Your task to perform on an android device: install app "Fetch Rewards" Image 0: 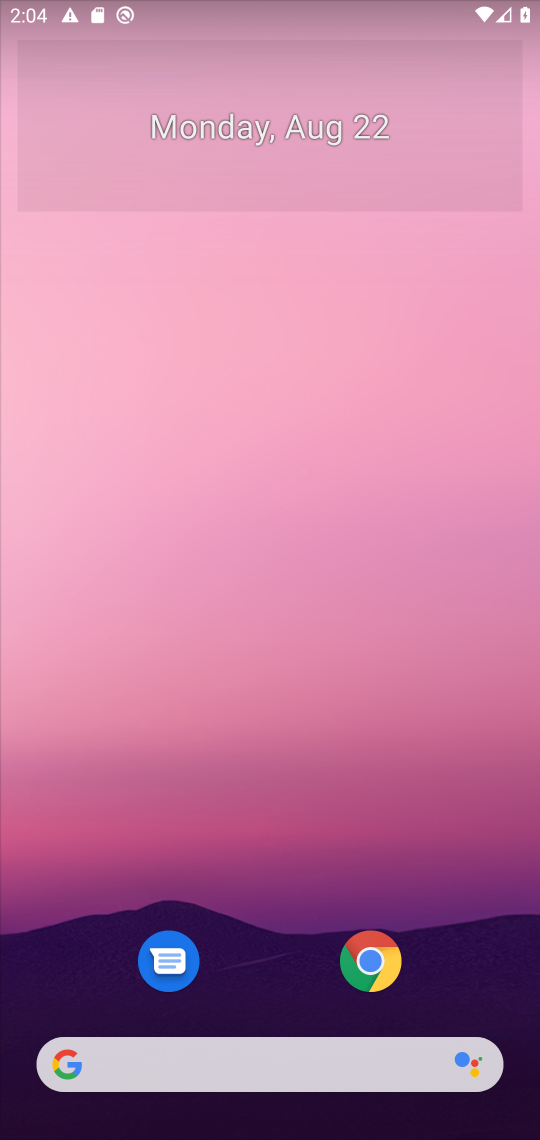
Step 0: press home button
Your task to perform on an android device: install app "Fetch Rewards" Image 1: 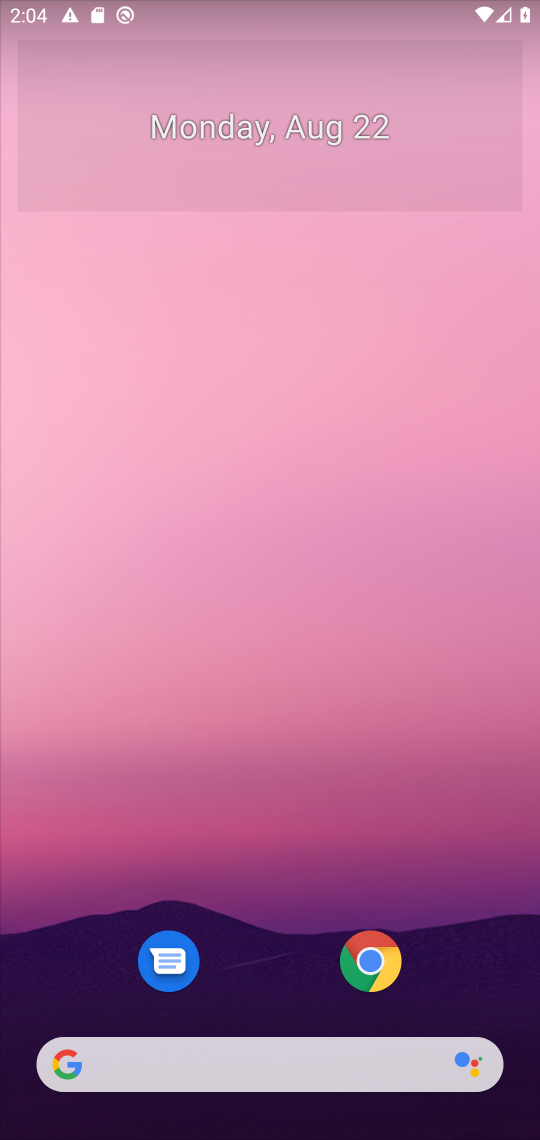
Step 1: drag from (465, 982) to (481, 178)
Your task to perform on an android device: install app "Fetch Rewards" Image 2: 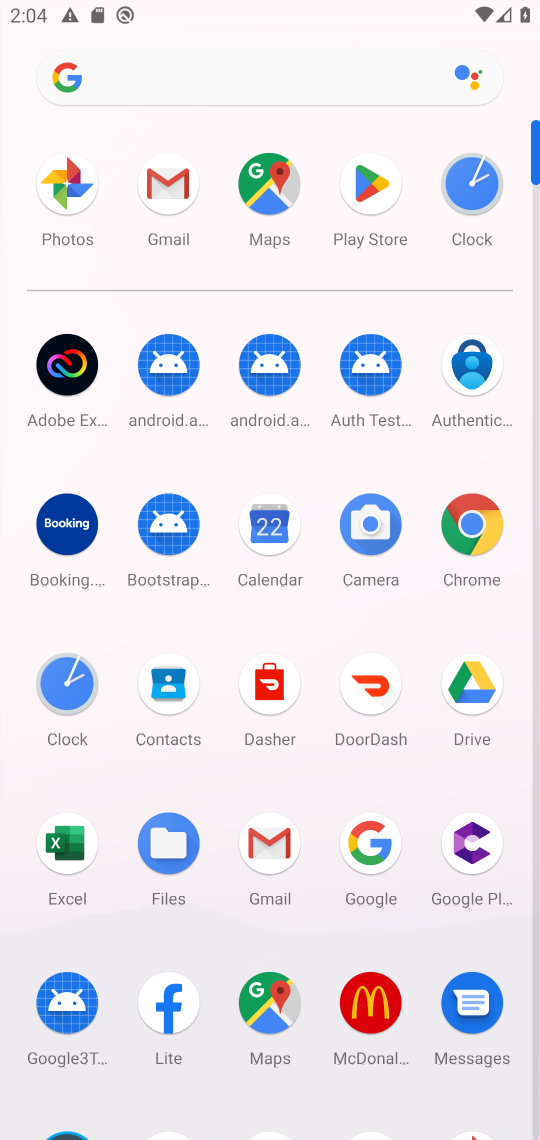
Step 2: click (375, 197)
Your task to perform on an android device: install app "Fetch Rewards" Image 3: 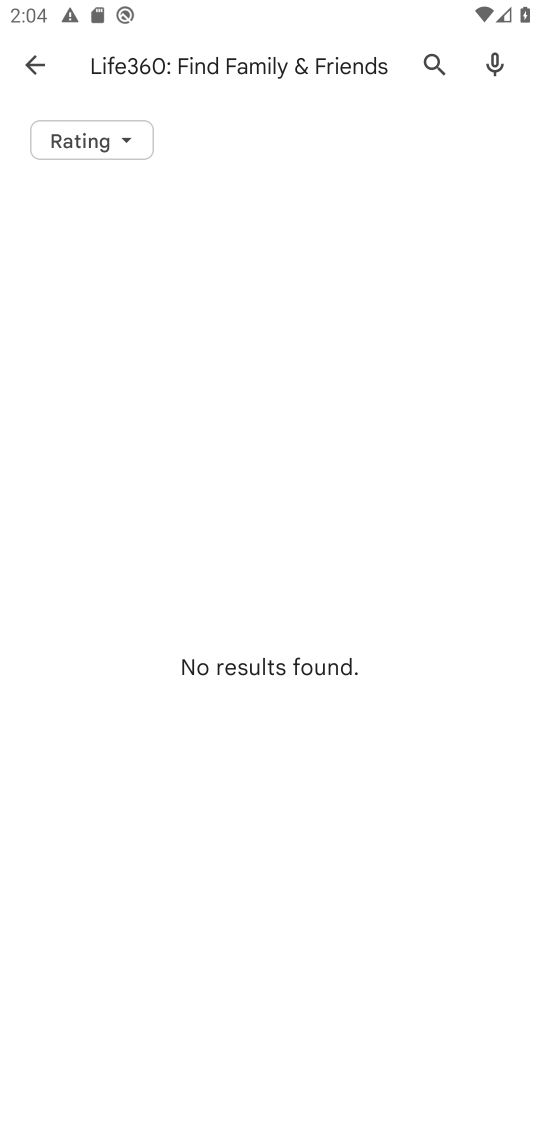
Step 3: press back button
Your task to perform on an android device: install app "Fetch Rewards" Image 4: 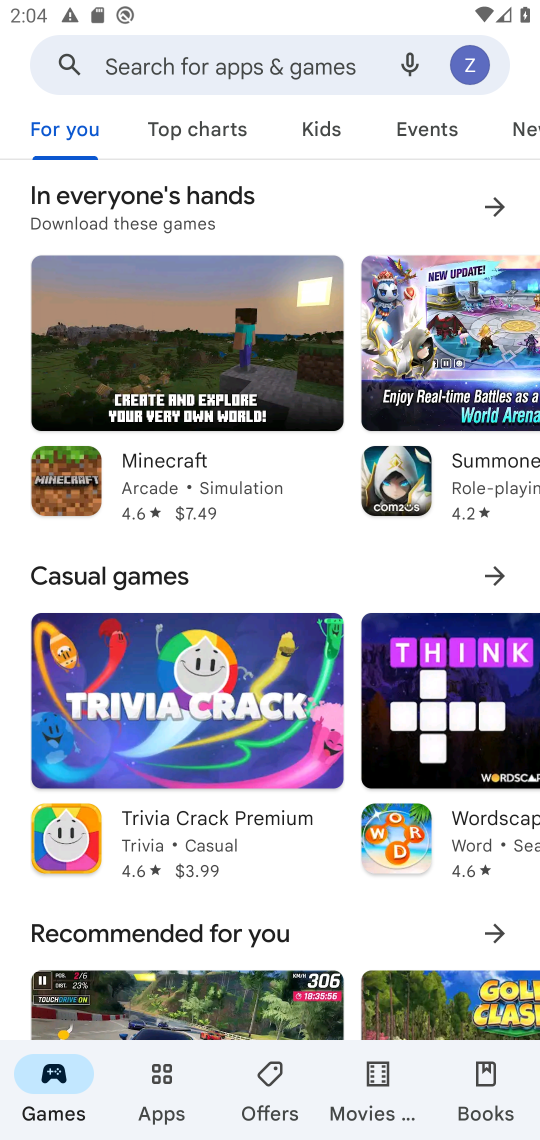
Step 4: click (261, 67)
Your task to perform on an android device: install app "Fetch Rewards" Image 5: 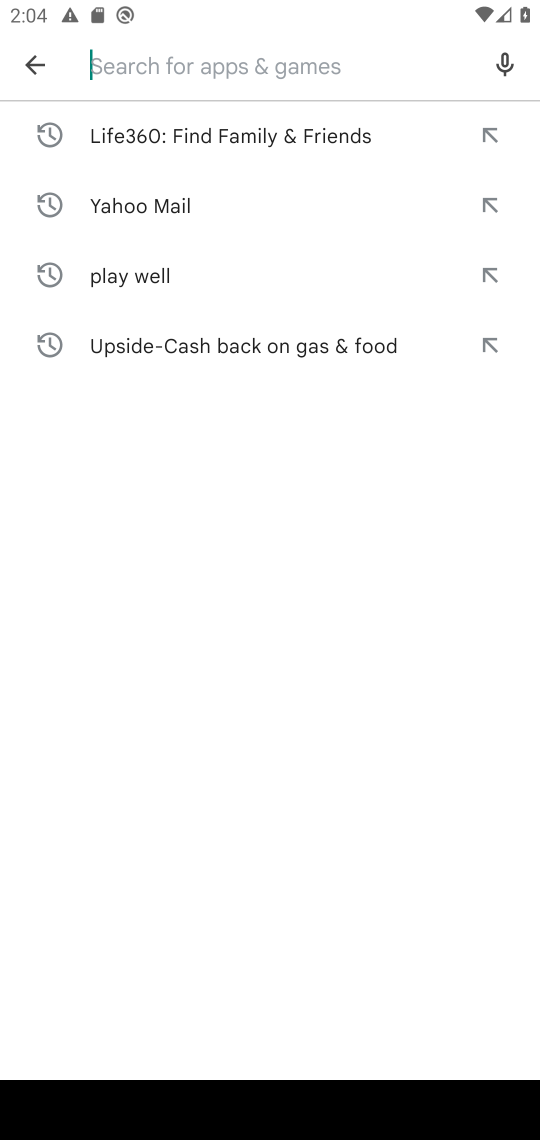
Step 5: type "Fetch Rewards"
Your task to perform on an android device: install app "Fetch Rewards" Image 6: 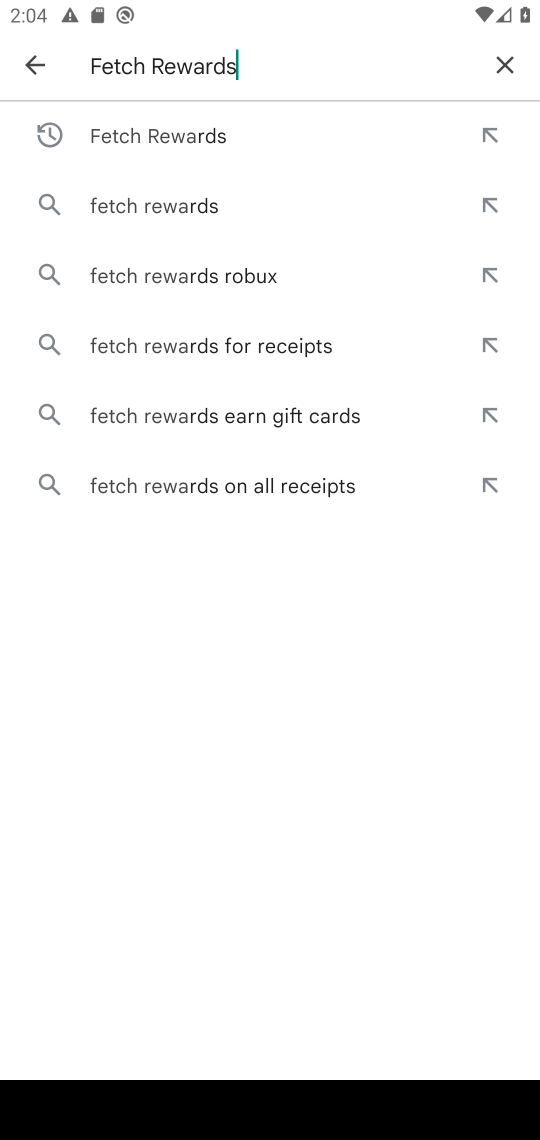
Step 6: press enter
Your task to perform on an android device: install app "Fetch Rewards" Image 7: 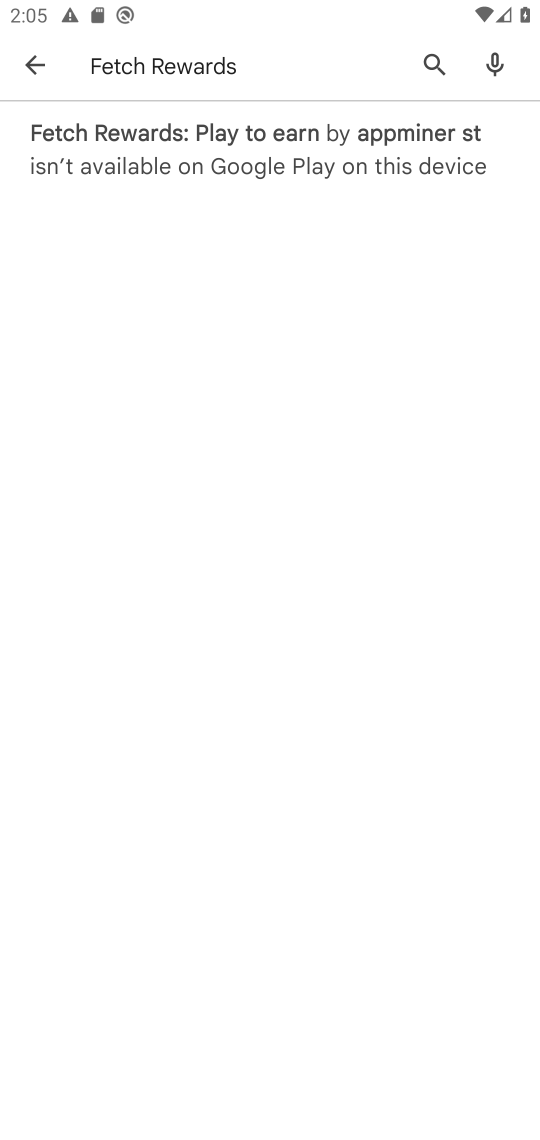
Step 7: task complete